Your task to perform on an android device: Do I have any events this weekend? Image 0: 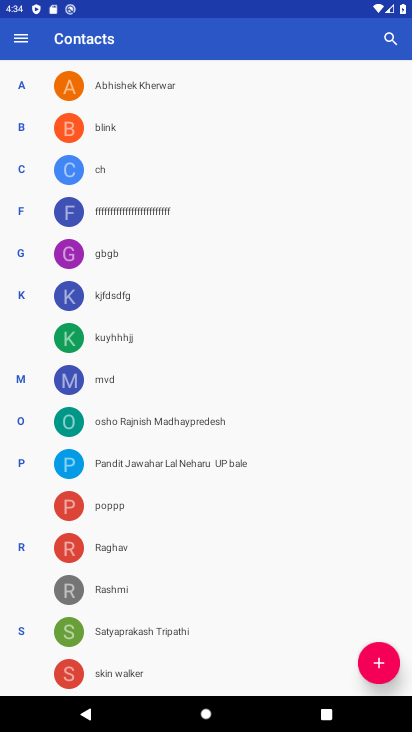
Step 0: press back button
Your task to perform on an android device: Do I have any events this weekend? Image 1: 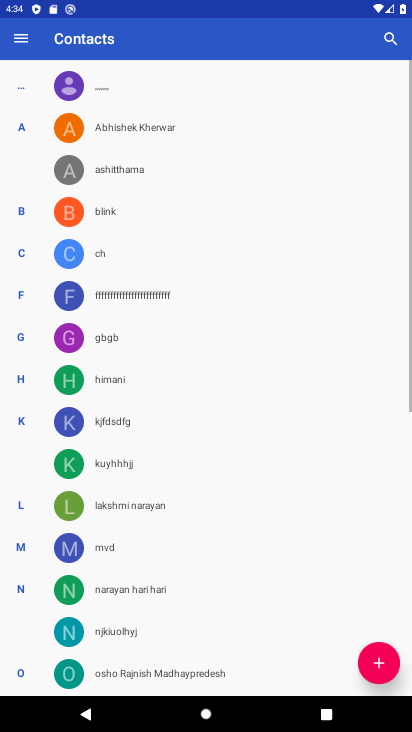
Step 1: press back button
Your task to perform on an android device: Do I have any events this weekend? Image 2: 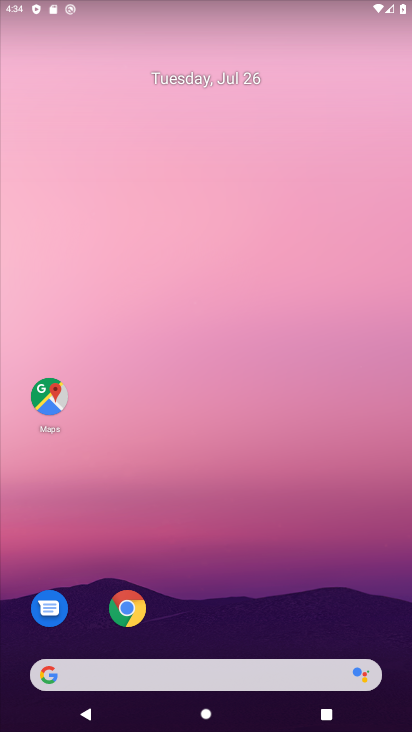
Step 2: press back button
Your task to perform on an android device: Do I have any events this weekend? Image 3: 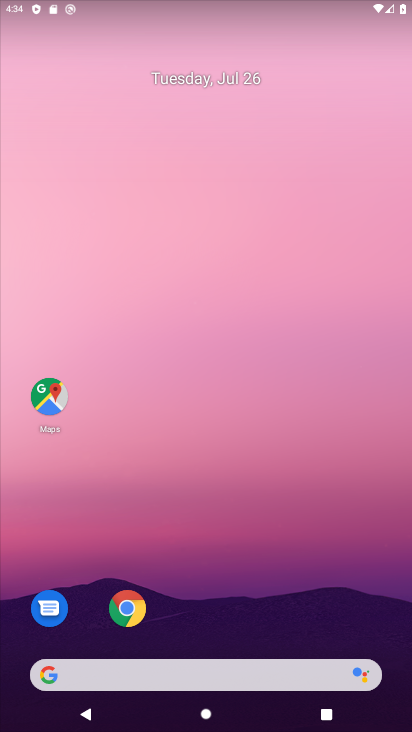
Step 3: press home button
Your task to perform on an android device: Do I have any events this weekend? Image 4: 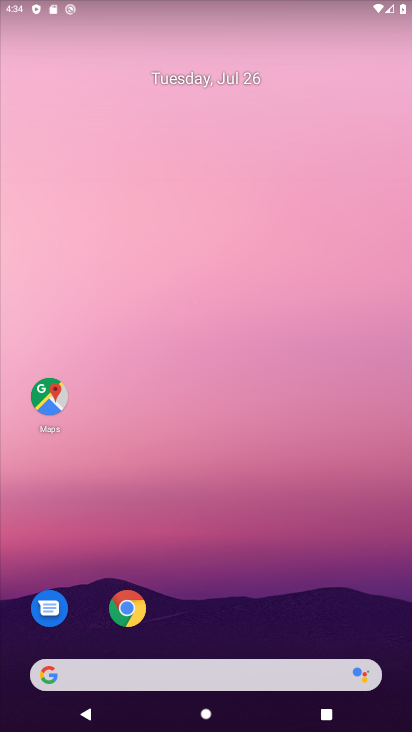
Step 4: drag from (132, 5) to (130, 132)
Your task to perform on an android device: Do I have any events this weekend? Image 5: 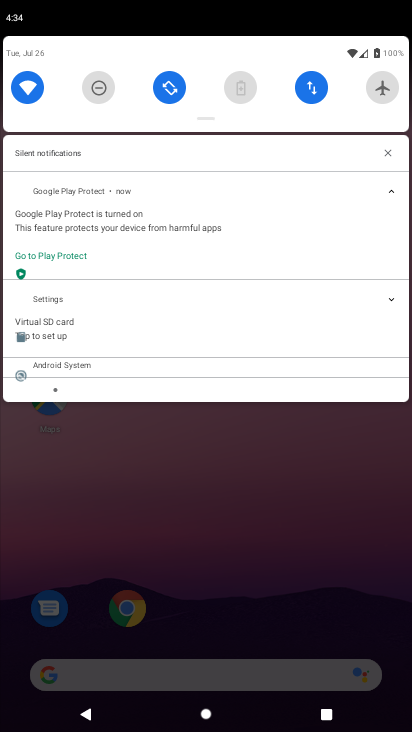
Step 5: drag from (176, 704) to (115, 89)
Your task to perform on an android device: Do I have any events this weekend? Image 6: 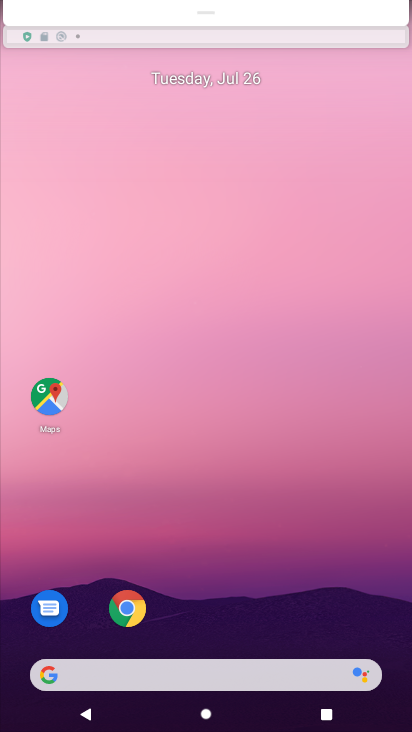
Step 6: drag from (211, 389) to (161, 115)
Your task to perform on an android device: Do I have any events this weekend? Image 7: 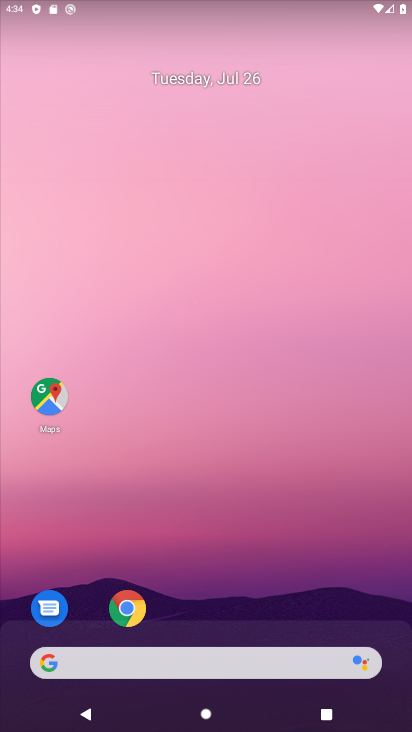
Step 7: drag from (320, 616) to (182, 38)
Your task to perform on an android device: Do I have any events this weekend? Image 8: 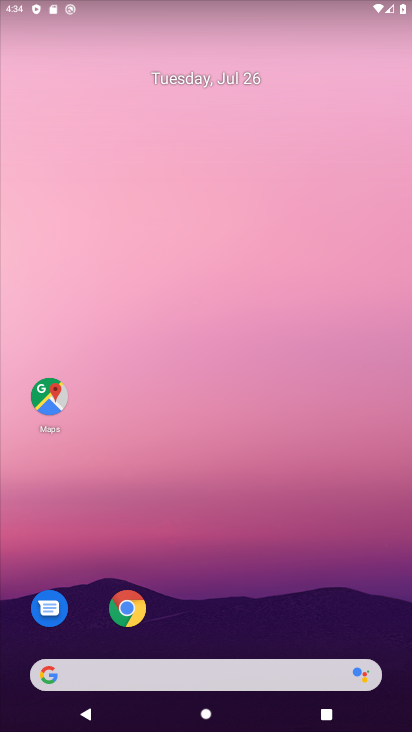
Step 8: drag from (161, 130) to (200, 503)
Your task to perform on an android device: Do I have any events this weekend? Image 9: 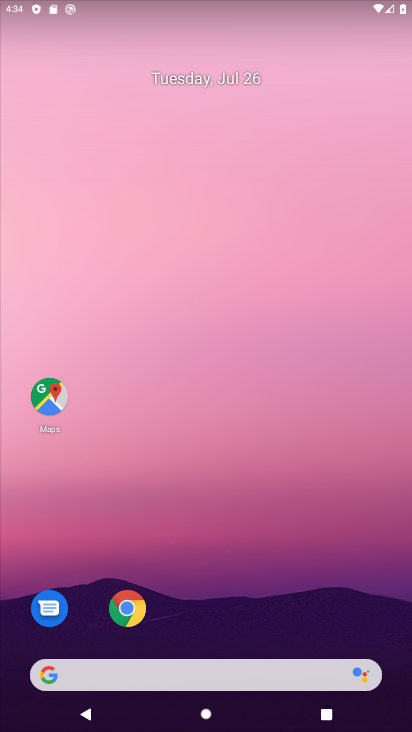
Step 9: drag from (196, 482) to (81, 77)
Your task to perform on an android device: Do I have any events this weekend? Image 10: 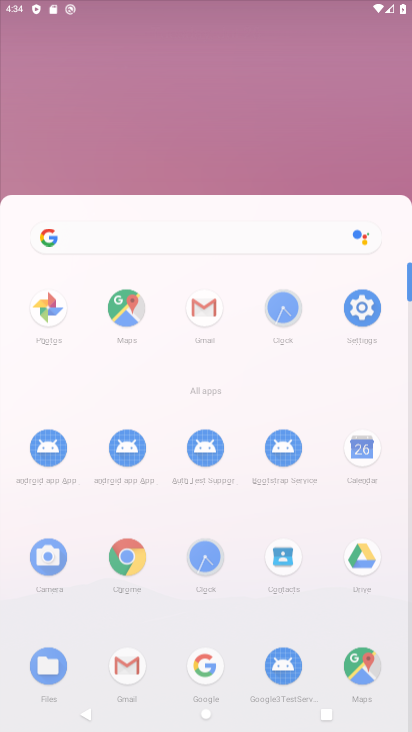
Step 10: drag from (176, 457) to (149, 174)
Your task to perform on an android device: Do I have any events this weekend? Image 11: 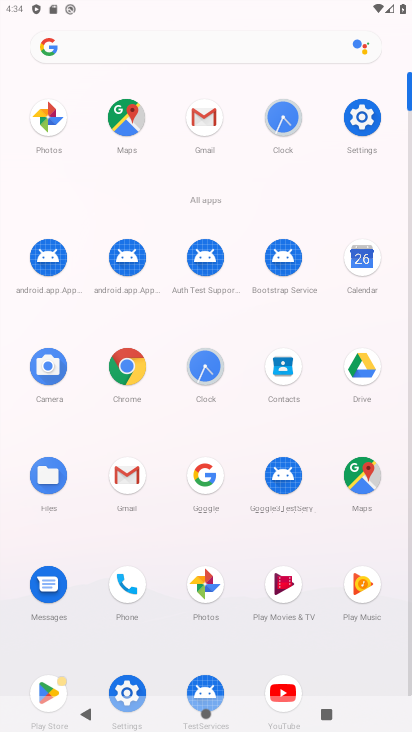
Step 11: click (367, 259)
Your task to perform on an android device: Do I have any events this weekend? Image 12: 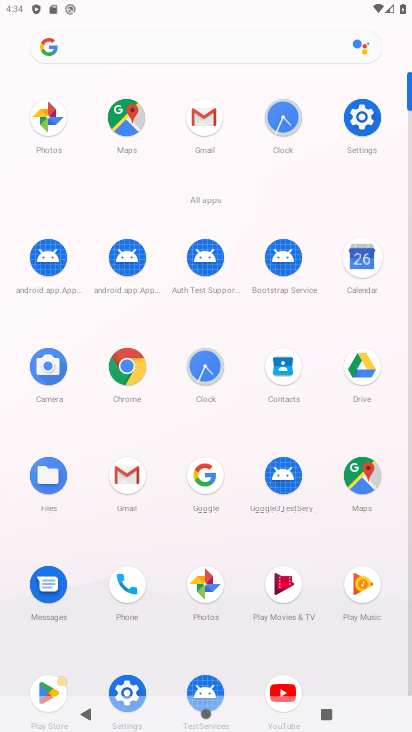
Step 12: click (365, 258)
Your task to perform on an android device: Do I have any events this weekend? Image 13: 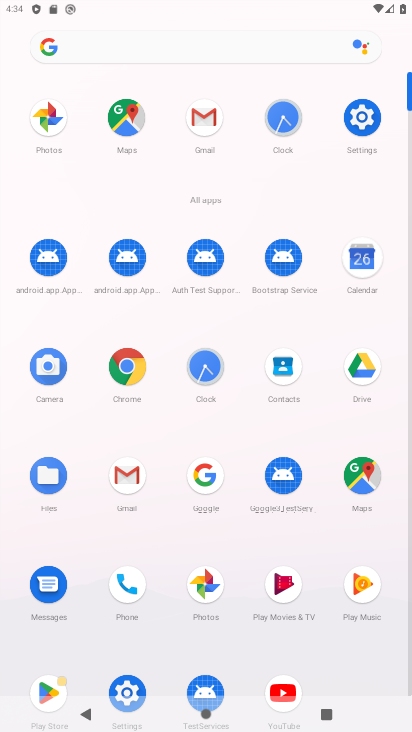
Step 13: click (367, 259)
Your task to perform on an android device: Do I have any events this weekend? Image 14: 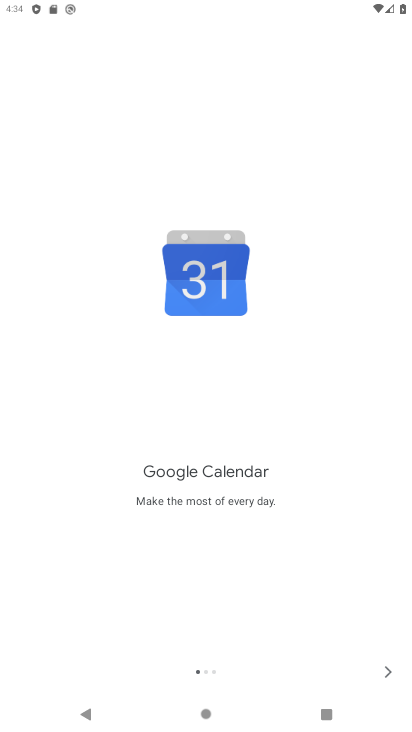
Step 14: click (391, 669)
Your task to perform on an android device: Do I have any events this weekend? Image 15: 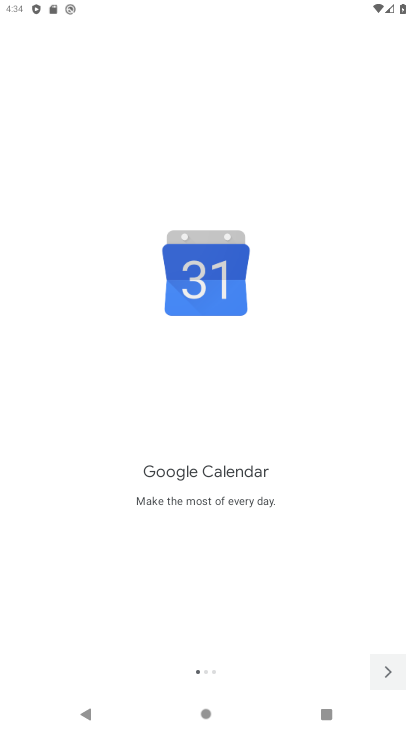
Step 15: click (393, 670)
Your task to perform on an android device: Do I have any events this weekend? Image 16: 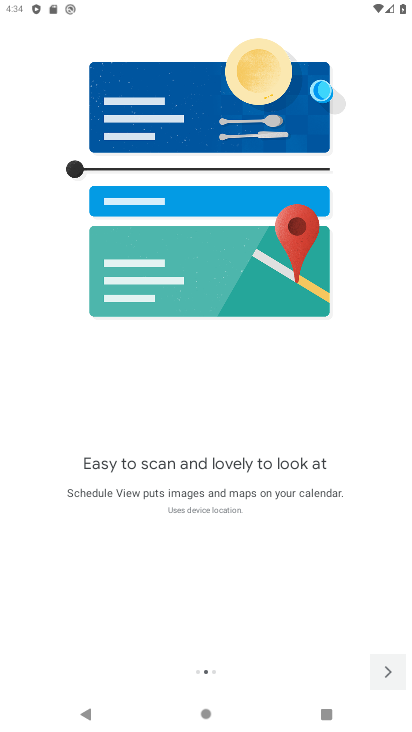
Step 16: click (395, 672)
Your task to perform on an android device: Do I have any events this weekend? Image 17: 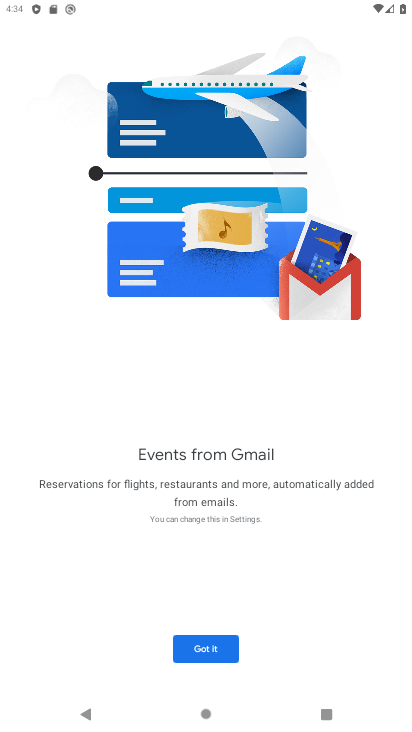
Step 17: click (223, 648)
Your task to perform on an android device: Do I have any events this weekend? Image 18: 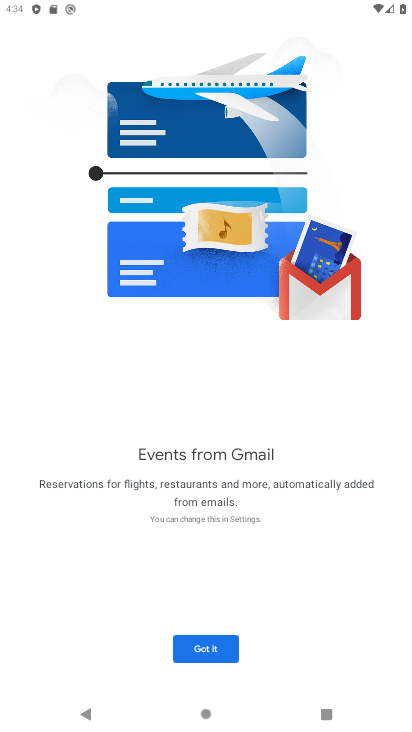
Step 18: click (222, 648)
Your task to perform on an android device: Do I have any events this weekend? Image 19: 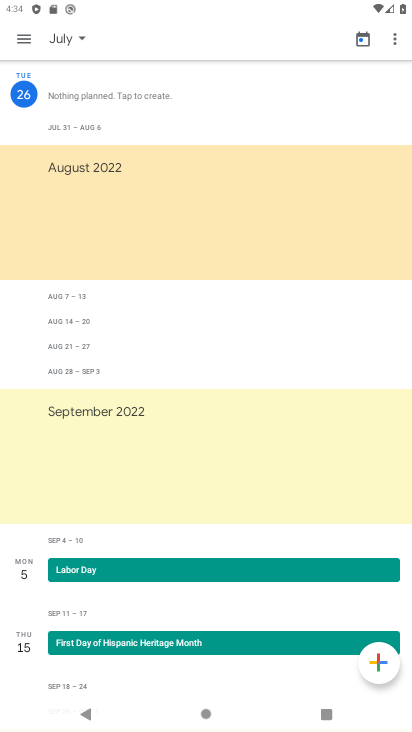
Step 19: click (82, 35)
Your task to perform on an android device: Do I have any events this weekend? Image 20: 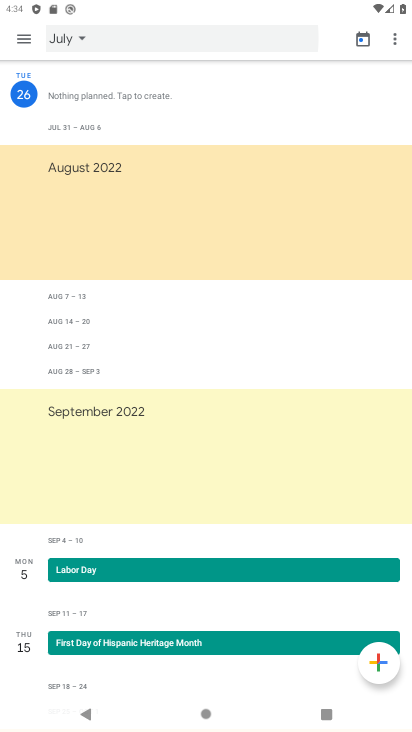
Step 20: click (82, 34)
Your task to perform on an android device: Do I have any events this weekend? Image 21: 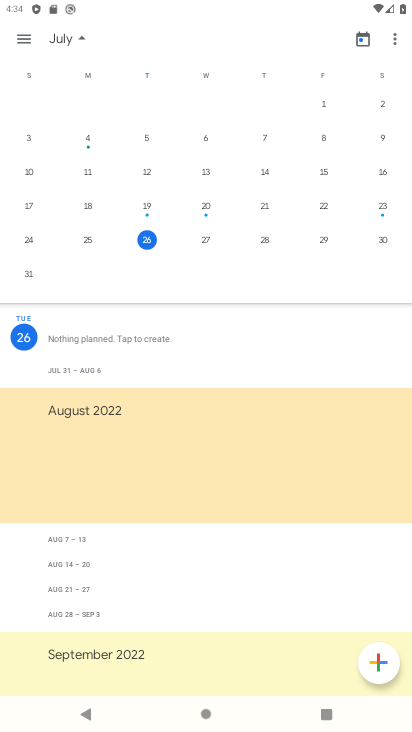
Step 21: click (326, 240)
Your task to perform on an android device: Do I have any events this weekend? Image 22: 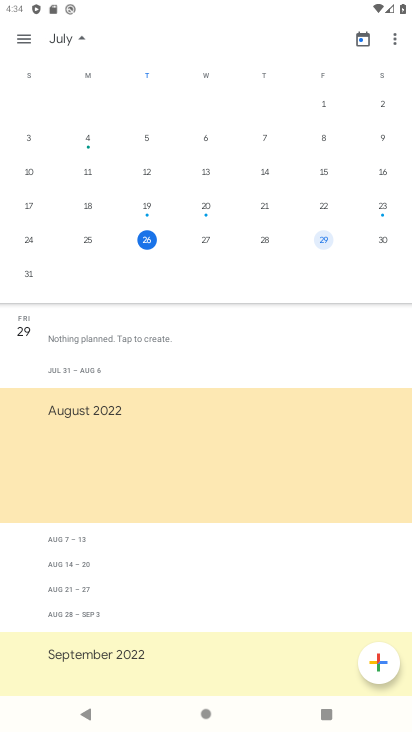
Step 22: click (326, 240)
Your task to perform on an android device: Do I have any events this weekend? Image 23: 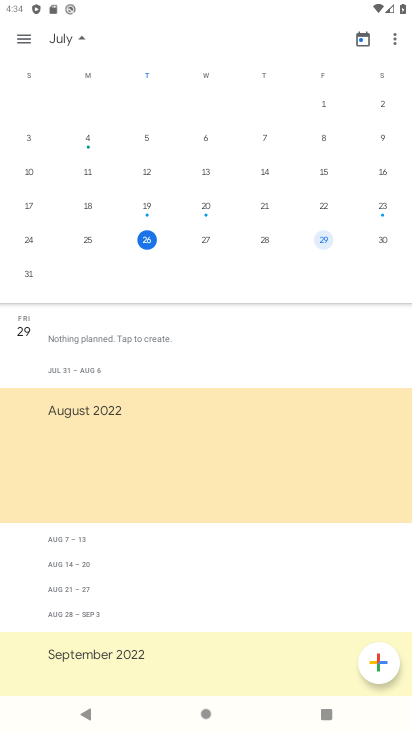
Step 23: click (331, 252)
Your task to perform on an android device: Do I have any events this weekend? Image 24: 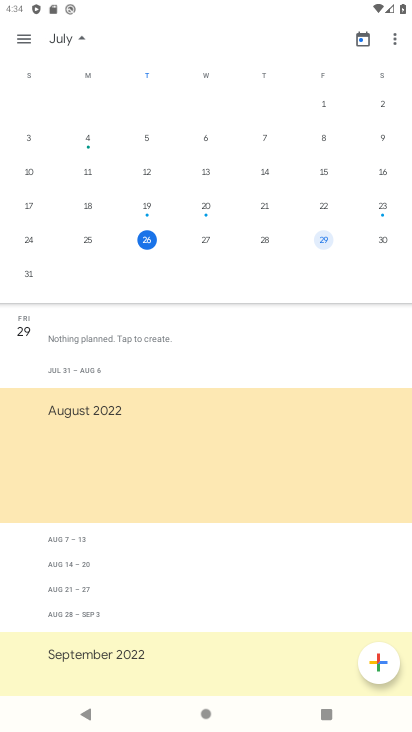
Step 24: click (332, 254)
Your task to perform on an android device: Do I have any events this weekend? Image 25: 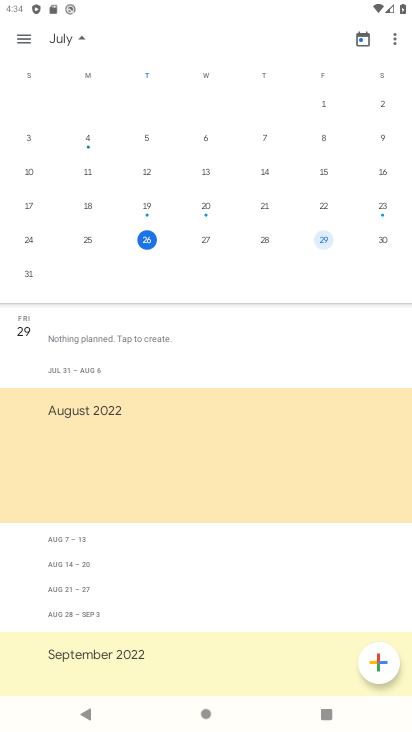
Step 25: click (337, 255)
Your task to perform on an android device: Do I have any events this weekend? Image 26: 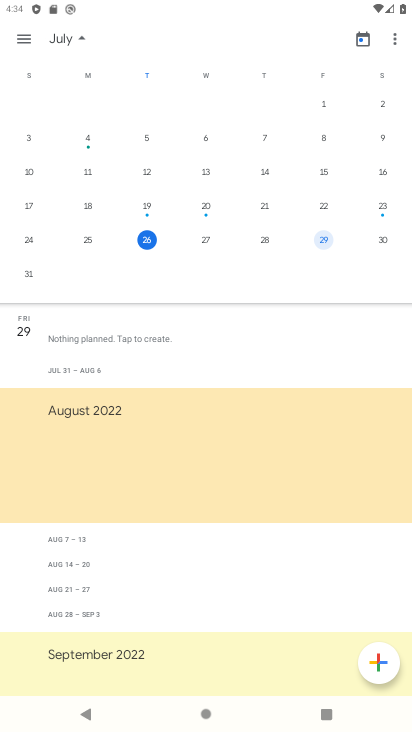
Step 26: click (315, 238)
Your task to perform on an android device: Do I have any events this weekend? Image 27: 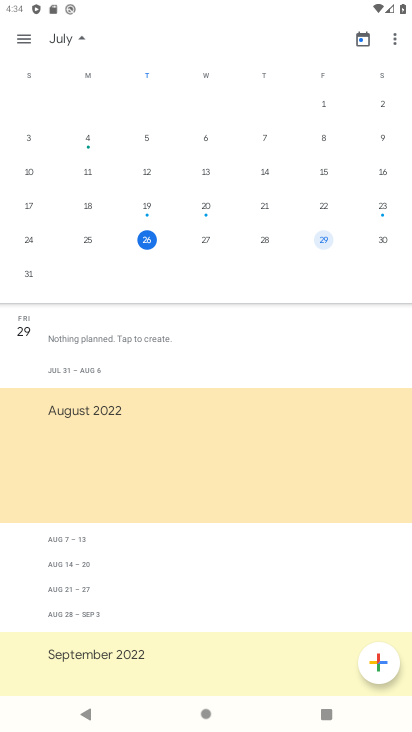
Step 27: click (314, 237)
Your task to perform on an android device: Do I have any events this weekend? Image 28: 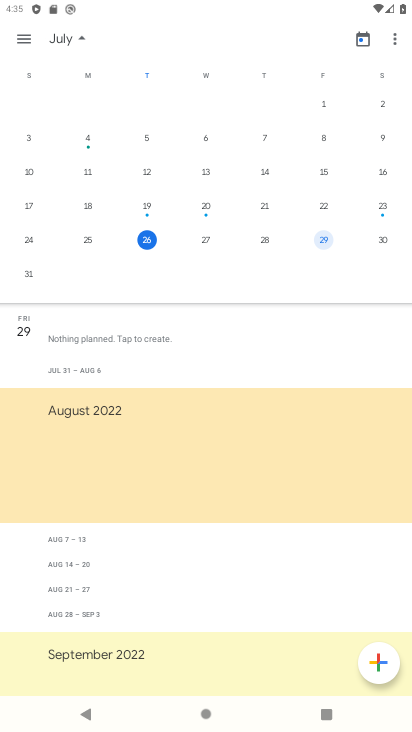
Step 28: click (326, 238)
Your task to perform on an android device: Do I have any events this weekend? Image 29: 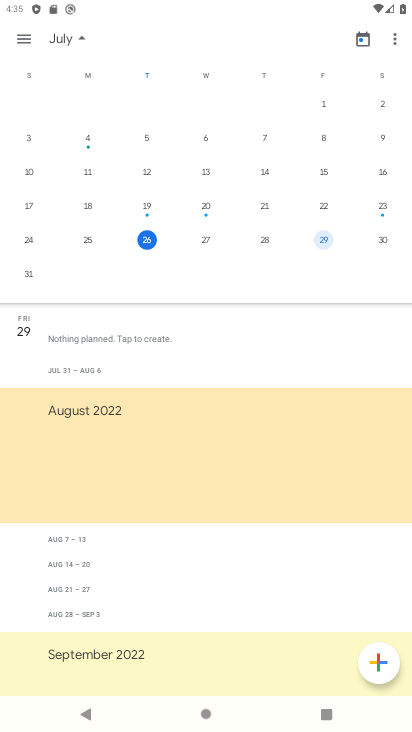
Step 29: click (325, 238)
Your task to perform on an android device: Do I have any events this weekend? Image 30: 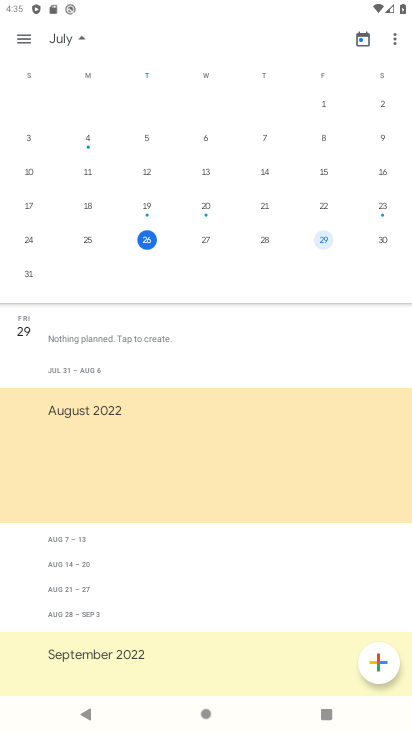
Step 30: task complete